Your task to perform on an android device: turn on the 24-hour format for clock Image 0: 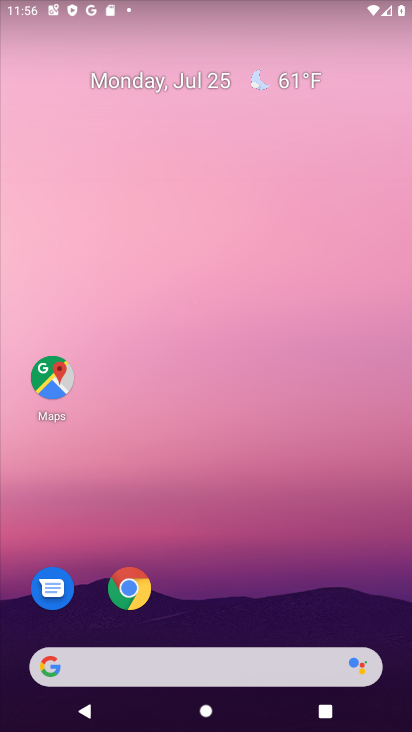
Step 0: drag from (216, 624) to (233, 1)
Your task to perform on an android device: turn on the 24-hour format for clock Image 1: 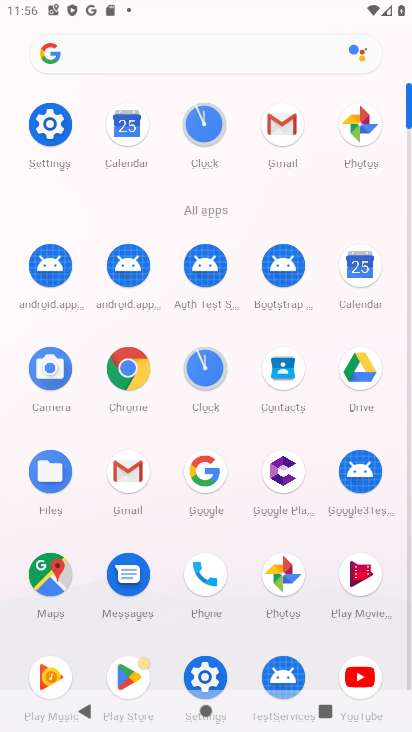
Step 1: click (202, 113)
Your task to perform on an android device: turn on the 24-hour format for clock Image 2: 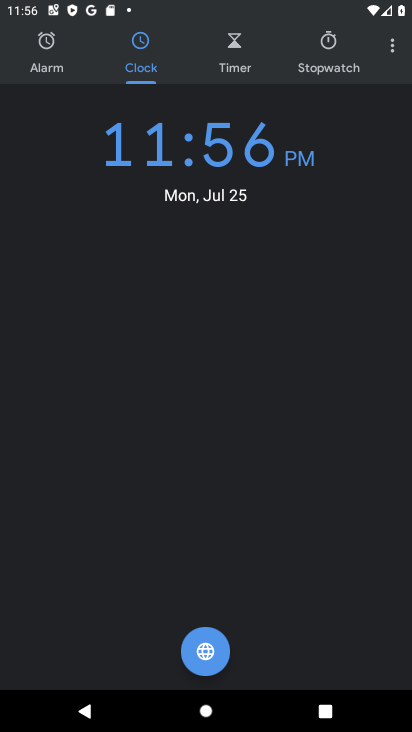
Step 2: click (397, 45)
Your task to perform on an android device: turn on the 24-hour format for clock Image 3: 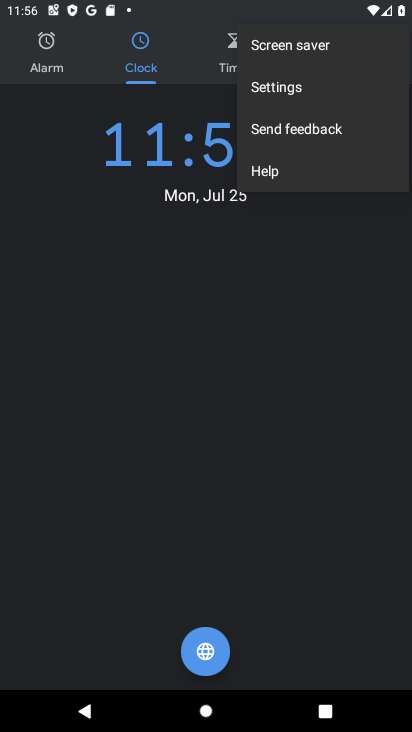
Step 3: click (268, 86)
Your task to perform on an android device: turn on the 24-hour format for clock Image 4: 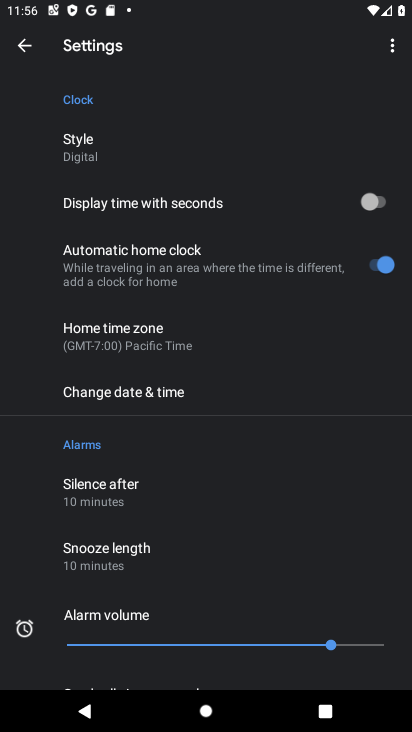
Step 4: click (208, 390)
Your task to perform on an android device: turn on the 24-hour format for clock Image 5: 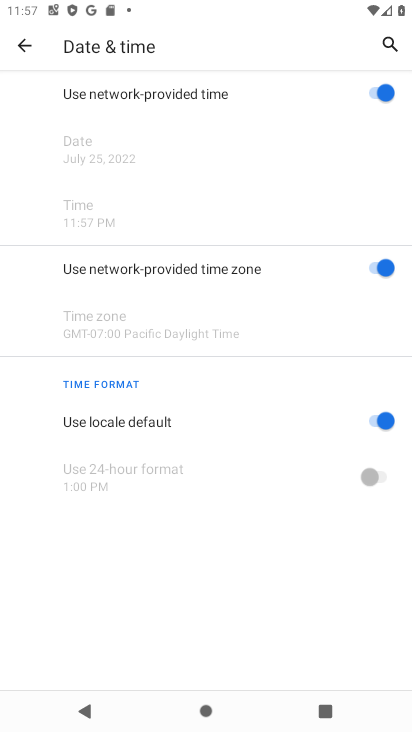
Step 5: click (377, 424)
Your task to perform on an android device: turn on the 24-hour format for clock Image 6: 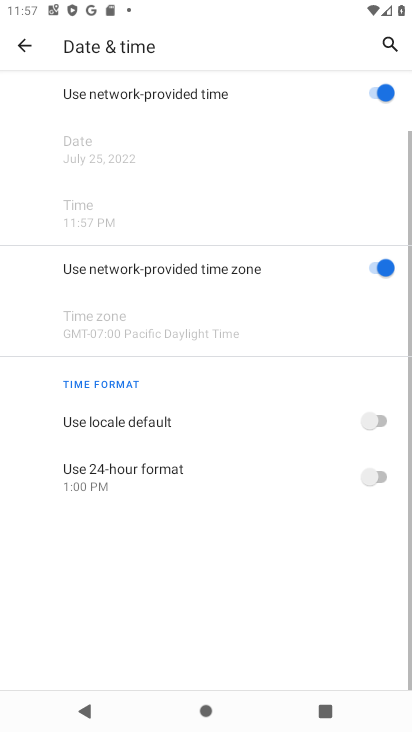
Step 6: click (374, 478)
Your task to perform on an android device: turn on the 24-hour format for clock Image 7: 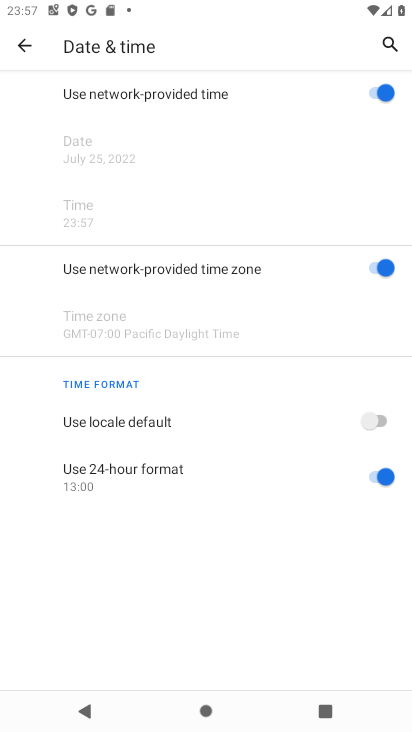
Step 7: task complete